Your task to perform on an android device: Go to display settings Image 0: 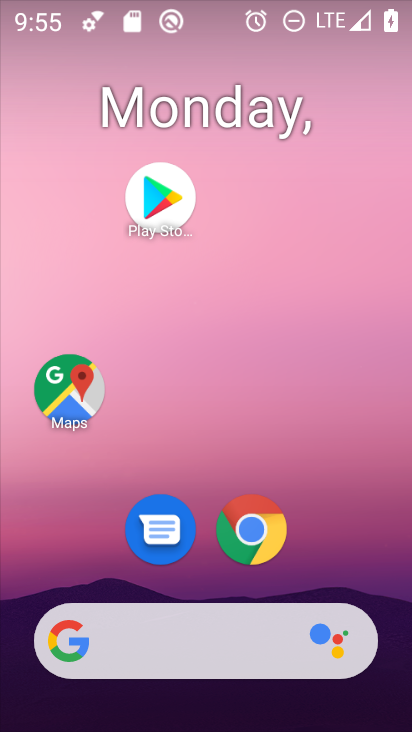
Step 0: drag from (358, 518) to (243, 29)
Your task to perform on an android device: Go to display settings Image 1: 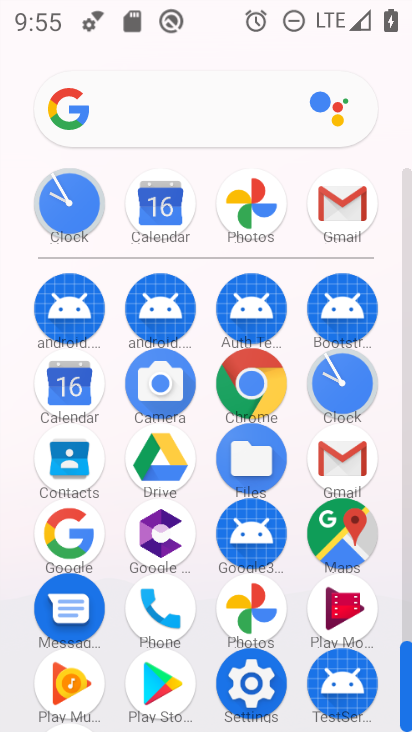
Step 1: click (239, 675)
Your task to perform on an android device: Go to display settings Image 2: 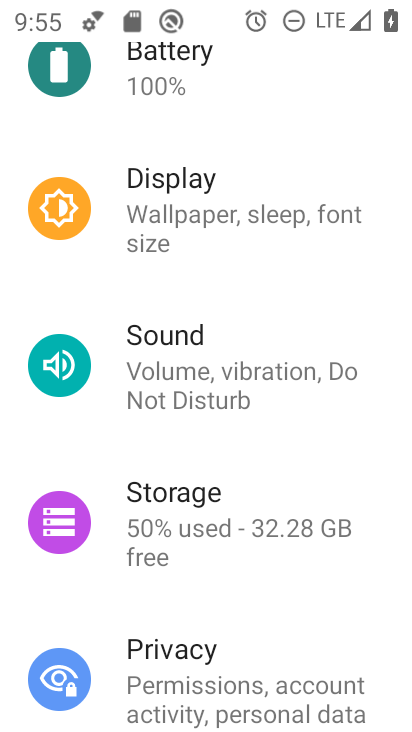
Step 2: click (143, 178)
Your task to perform on an android device: Go to display settings Image 3: 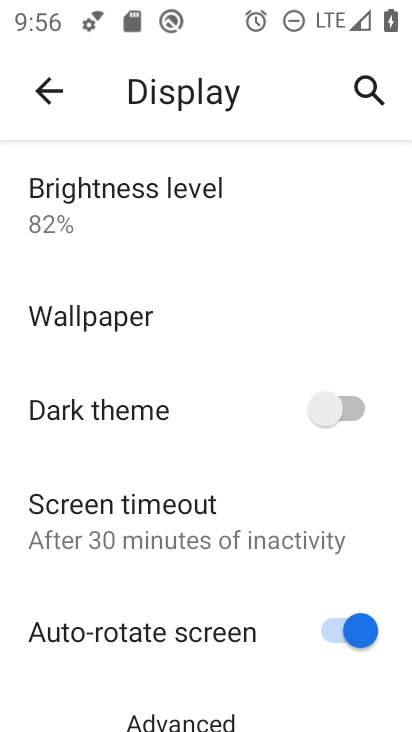
Step 3: task complete